Your task to perform on an android device: Show me recent news Image 0: 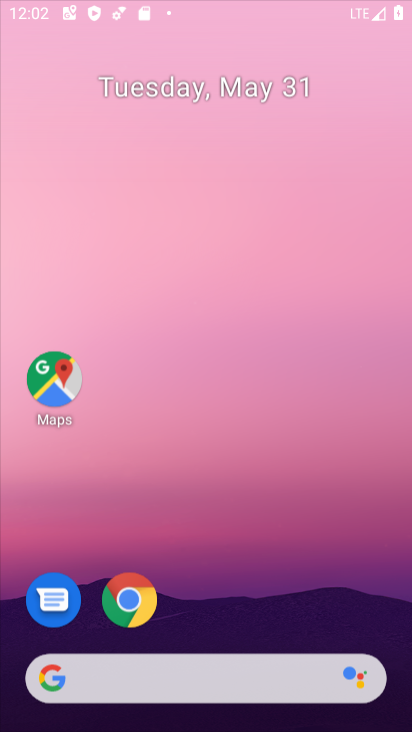
Step 0: drag from (216, 621) to (212, 70)
Your task to perform on an android device: Show me recent news Image 1: 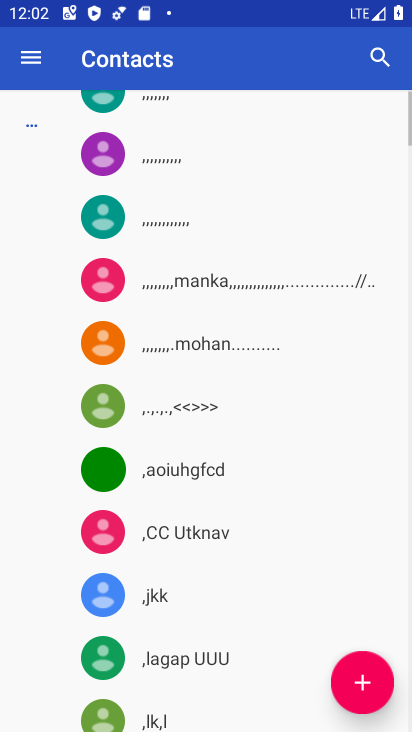
Step 1: task complete